Your task to perform on an android device: turn off javascript in the chrome app Image 0: 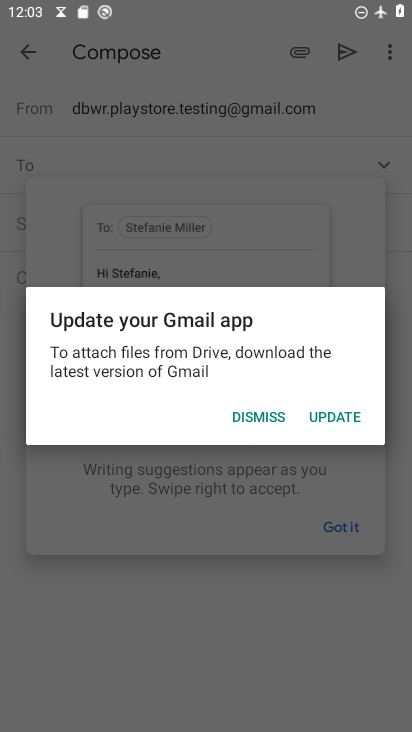
Step 0: press home button
Your task to perform on an android device: turn off javascript in the chrome app Image 1: 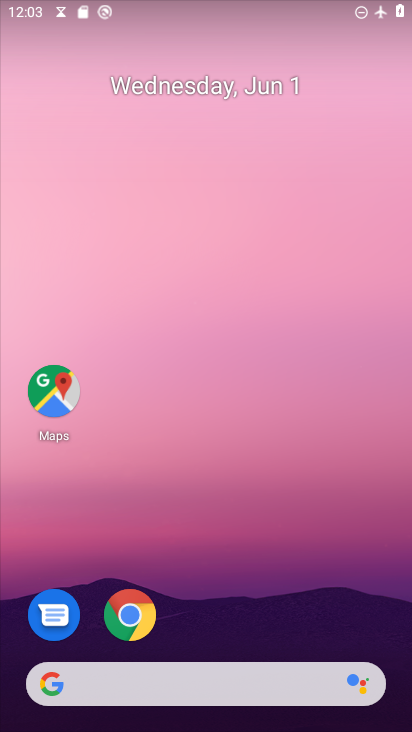
Step 1: drag from (223, 672) to (188, 16)
Your task to perform on an android device: turn off javascript in the chrome app Image 2: 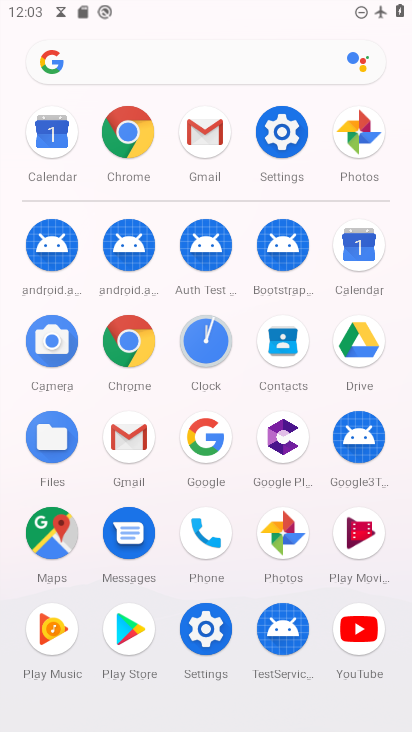
Step 2: click (118, 341)
Your task to perform on an android device: turn off javascript in the chrome app Image 3: 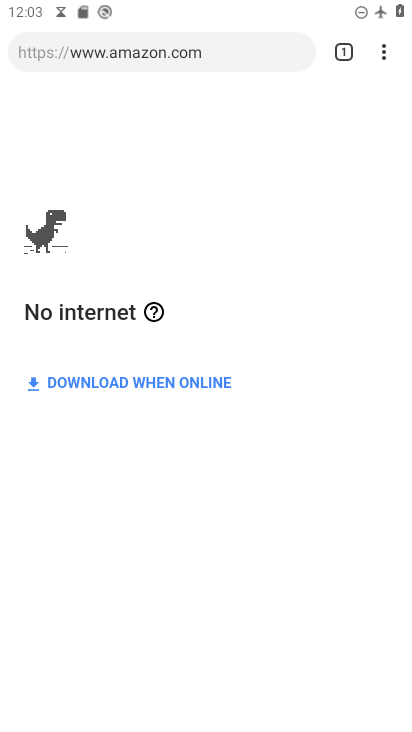
Step 3: drag from (389, 49) to (385, 83)
Your task to perform on an android device: turn off javascript in the chrome app Image 4: 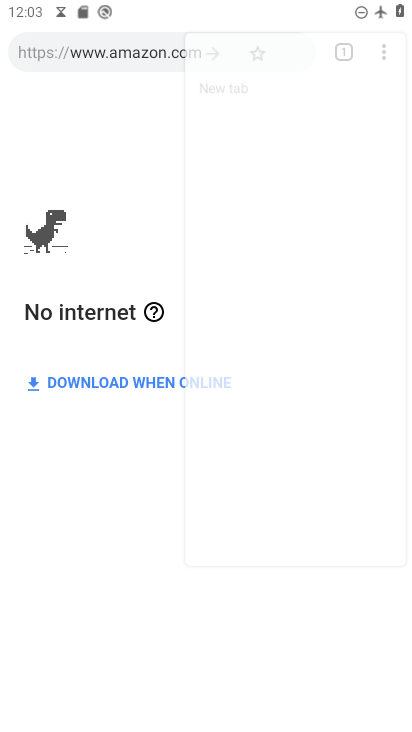
Step 4: drag from (360, 168) to (310, 482)
Your task to perform on an android device: turn off javascript in the chrome app Image 5: 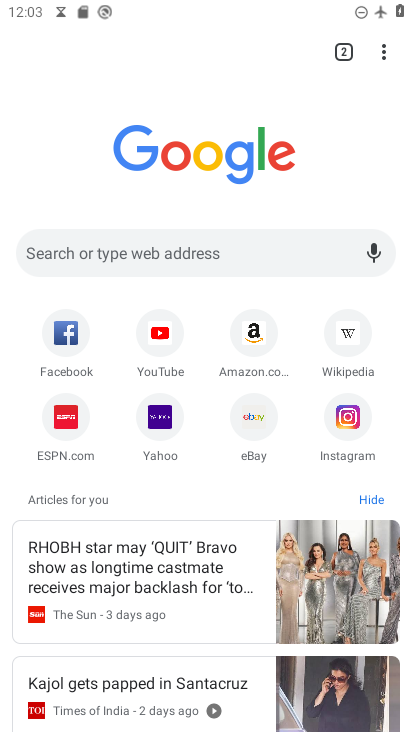
Step 5: drag from (377, 45) to (265, 472)
Your task to perform on an android device: turn off javascript in the chrome app Image 6: 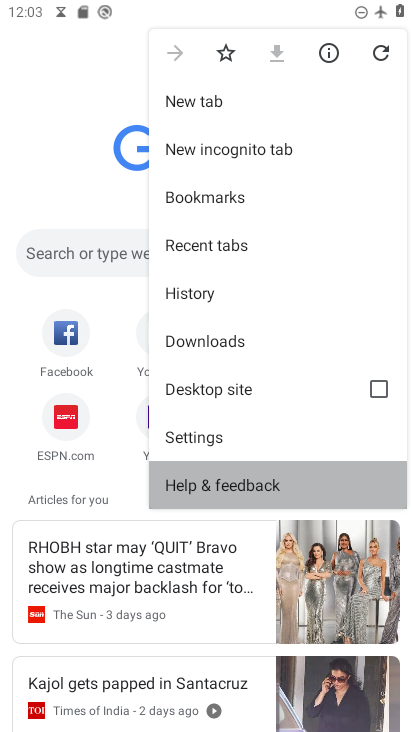
Step 6: click (232, 450)
Your task to perform on an android device: turn off javascript in the chrome app Image 7: 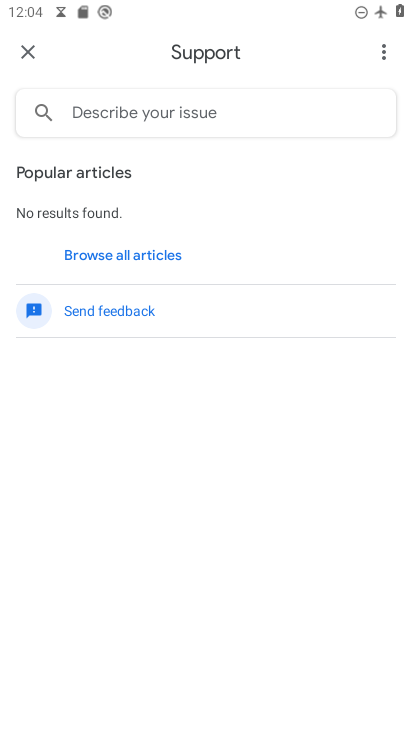
Step 7: press back button
Your task to perform on an android device: turn off javascript in the chrome app Image 8: 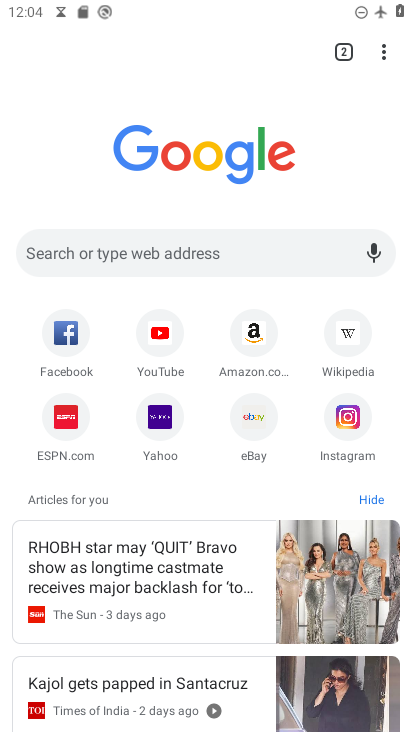
Step 8: drag from (388, 49) to (222, 436)
Your task to perform on an android device: turn off javascript in the chrome app Image 9: 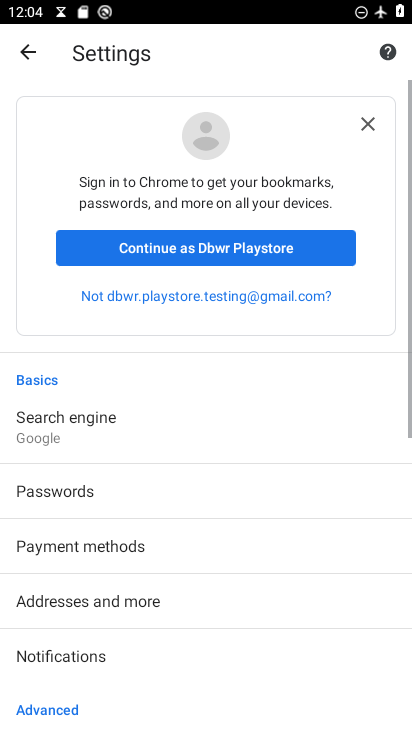
Step 9: drag from (294, 620) to (346, 66)
Your task to perform on an android device: turn off javascript in the chrome app Image 10: 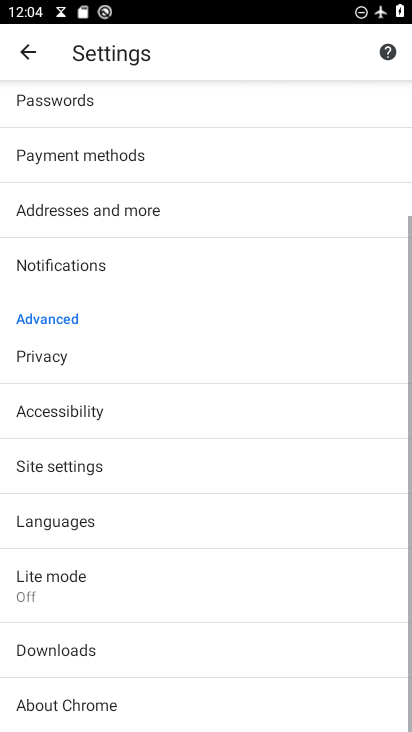
Step 10: click (156, 472)
Your task to perform on an android device: turn off javascript in the chrome app Image 11: 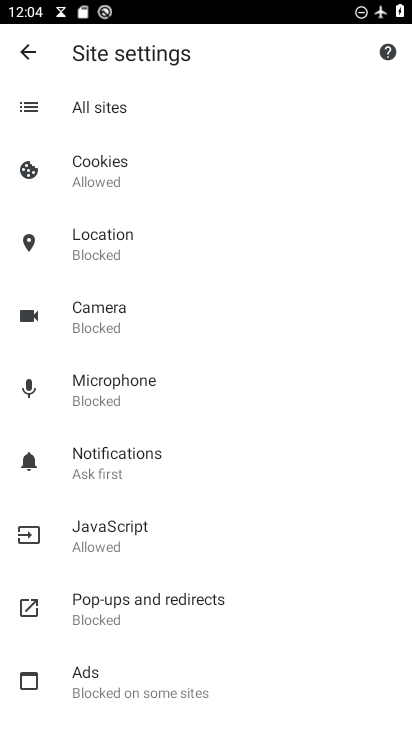
Step 11: click (97, 528)
Your task to perform on an android device: turn off javascript in the chrome app Image 12: 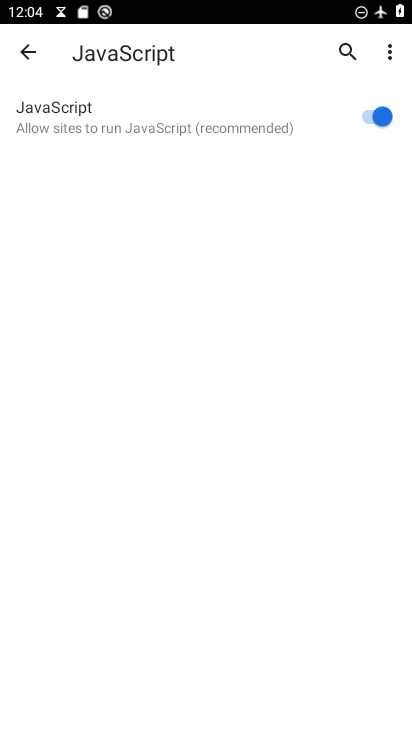
Step 12: click (381, 125)
Your task to perform on an android device: turn off javascript in the chrome app Image 13: 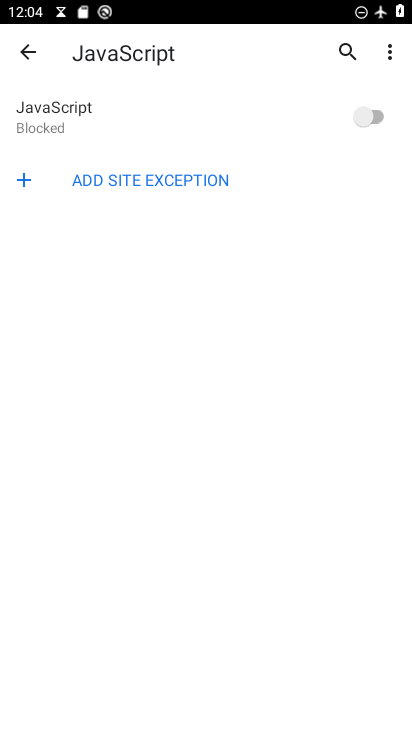
Step 13: task complete